Your task to perform on an android device: Search for good BBQ restaurants Image 0: 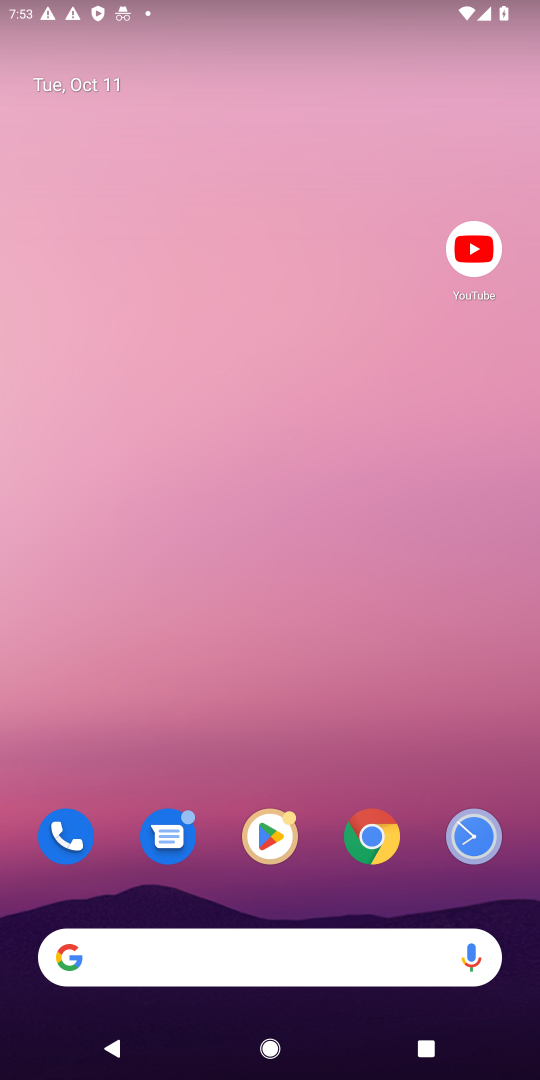
Step 0: click (362, 837)
Your task to perform on an android device: Search for good BBQ restaurants Image 1: 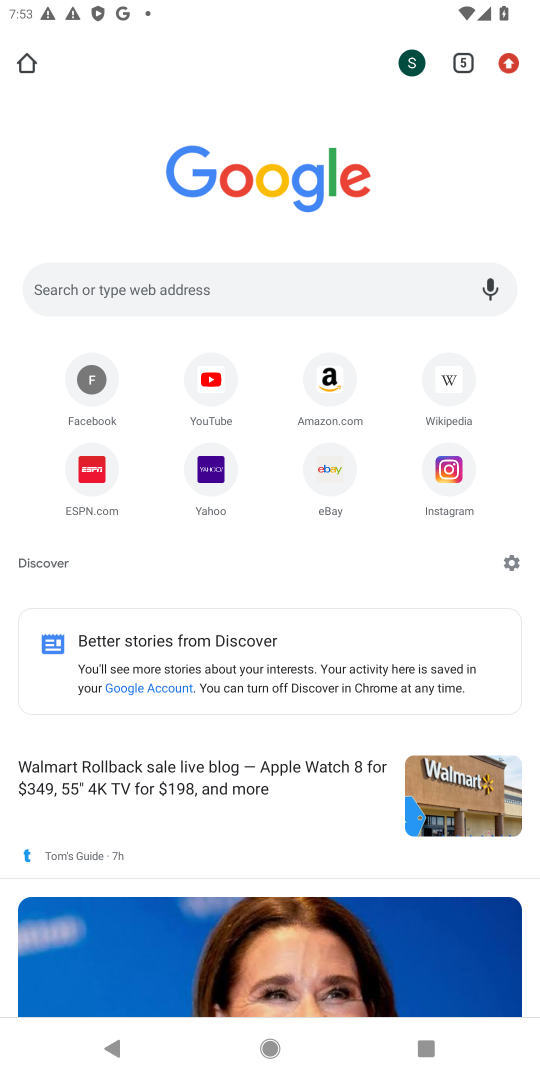
Step 1: click (213, 284)
Your task to perform on an android device: Search for good BBQ restaurants Image 2: 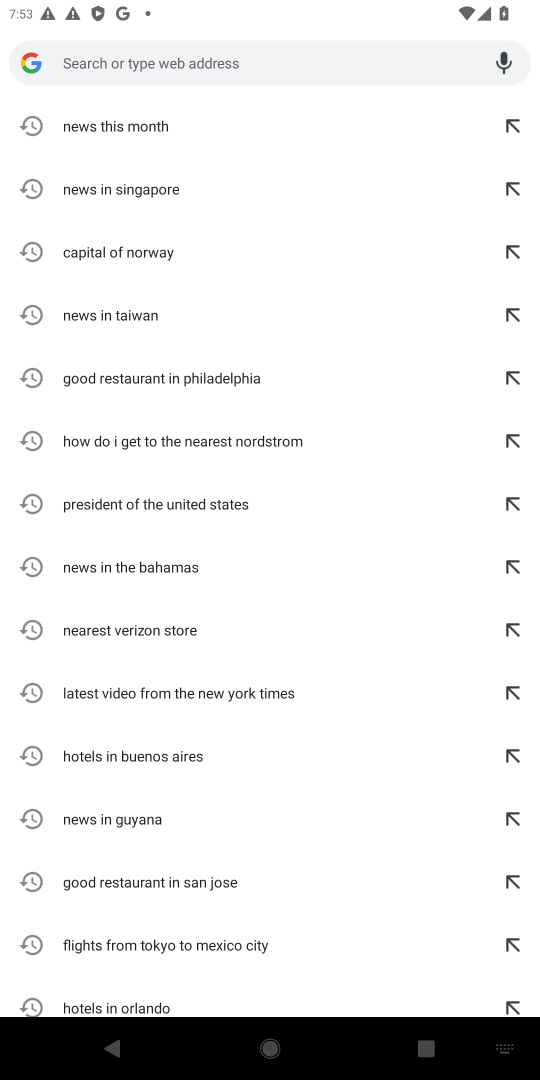
Step 2: type " good BBQ restaurants"
Your task to perform on an android device: Search for good BBQ restaurants Image 3: 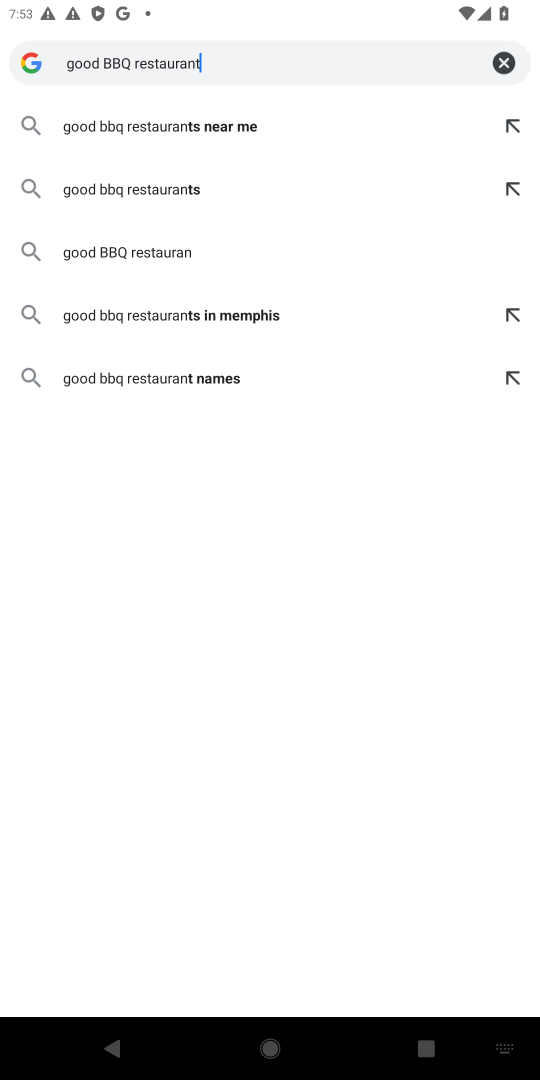
Step 3: press enter
Your task to perform on an android device: Search for good BBQ restaurants Image 4: 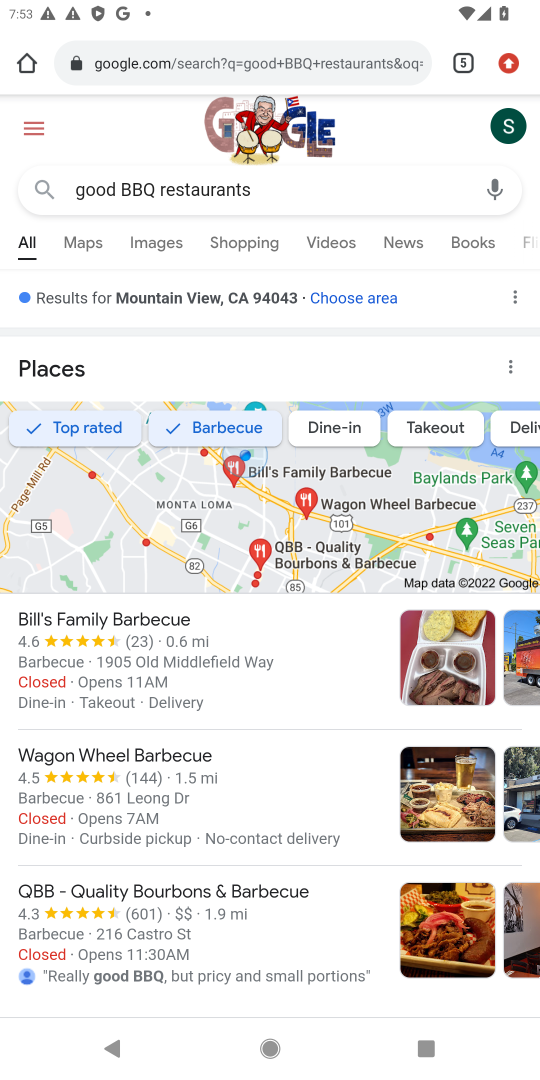
Step 4: drag from (219, 853) to (442, 252)
Your task to perform on an android device: Search for good BBQ restaurants Image 5: 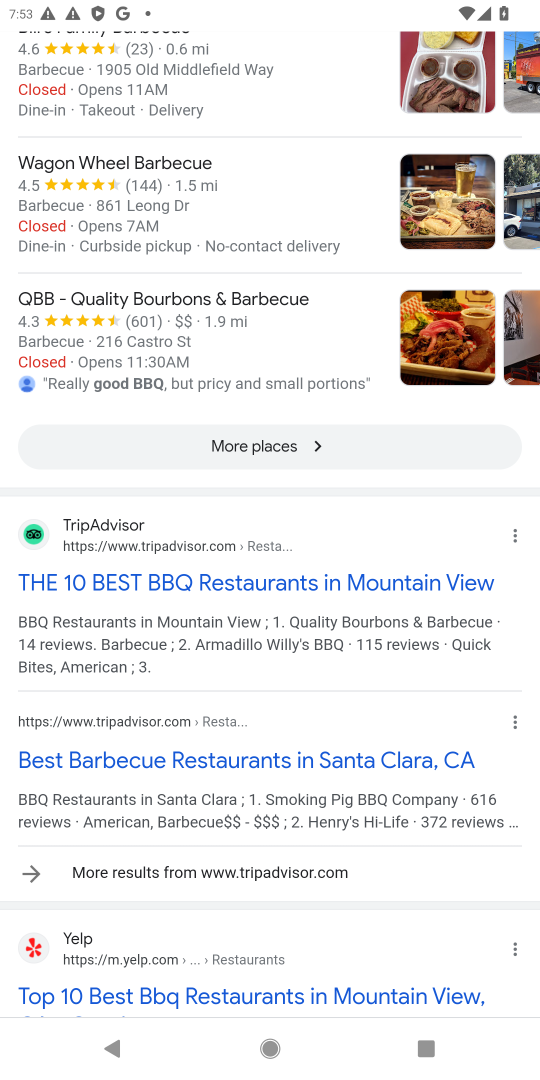
Step 5: click (267, 438)
Your task to perform on an android device: Search for good BBQ restaurants Image 6: 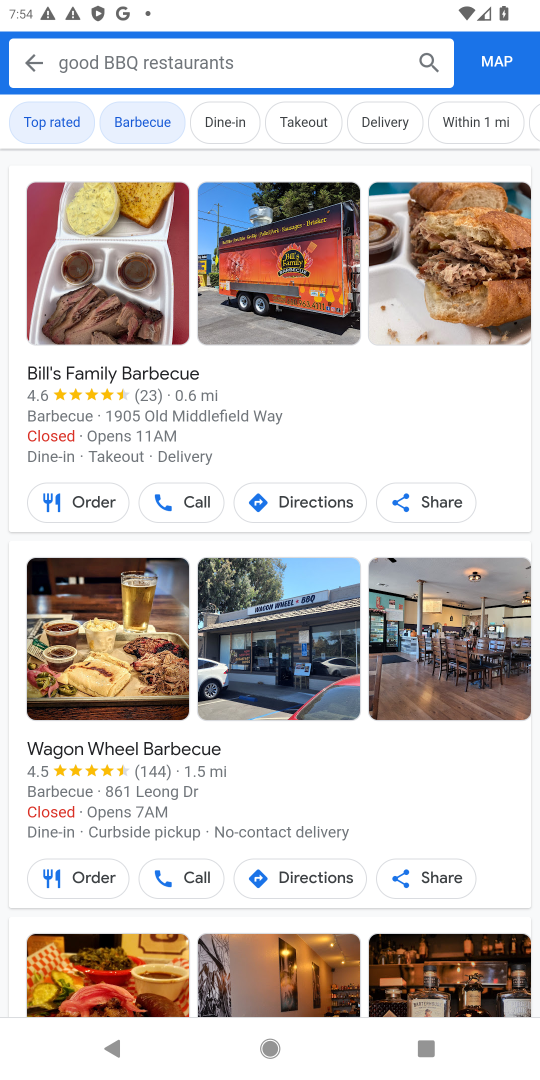
Step 6: task complete